Your task to perform on an android device: Open the stopwatch Image 0: 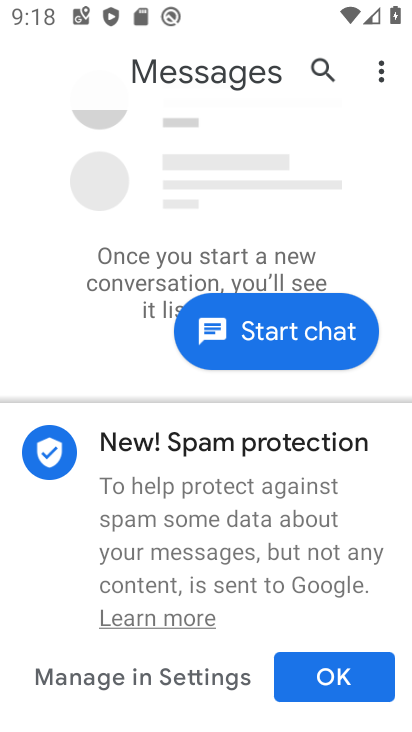
Step 0: press home button
Your task to perform on an android device: Open the stopwatch Image 1: 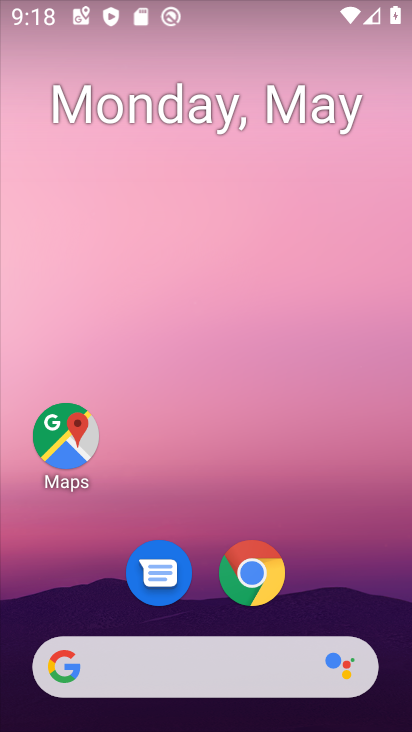
Step 1: drag from (350, 571) to (245, 115)
Your task to perform on an android device: Open the stopwatch Image 2: 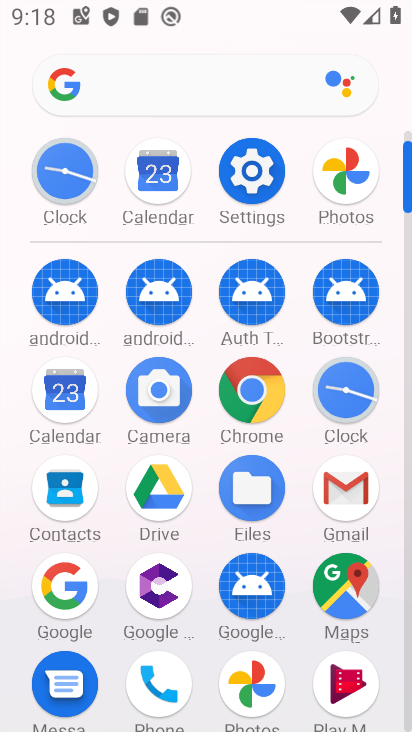
Step 2: click (252, 217)
Your task to perform on an android device: Open the stopwatch Image 3: 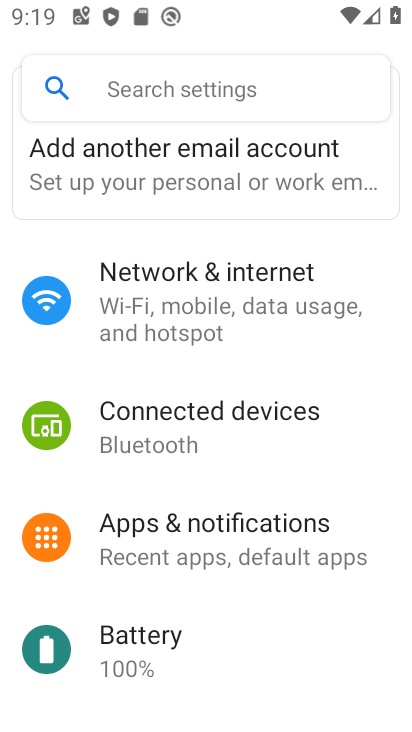
Step 3: drag from (203, 581) to (243, 176)
Your task to perform on an android device: Open the stopwatch Image 4: 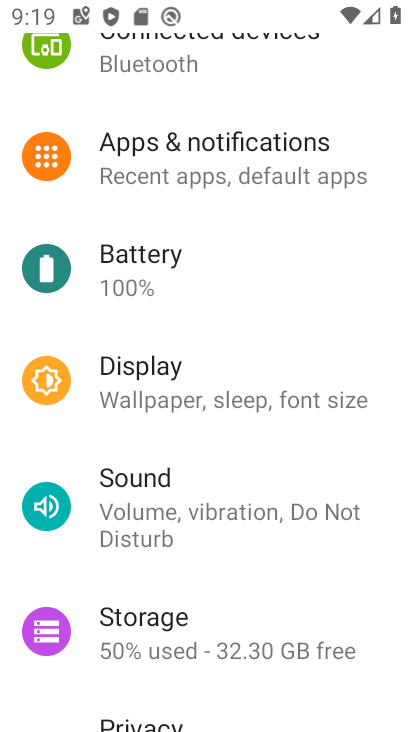
Step 4: drag from (214, 538) to (256, 290)
Your task to perform on an android device: Open the stopwatch Image 5: 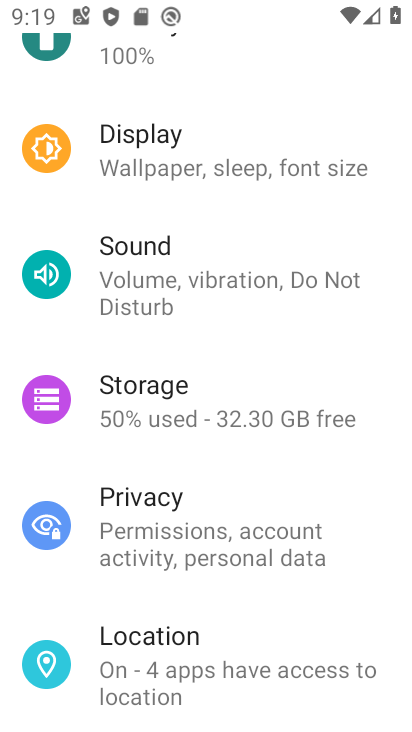
Step 5: drag from (130, 250) to (143, 540)
Your task to perform on an android device: Open the stopwatch Image 6: 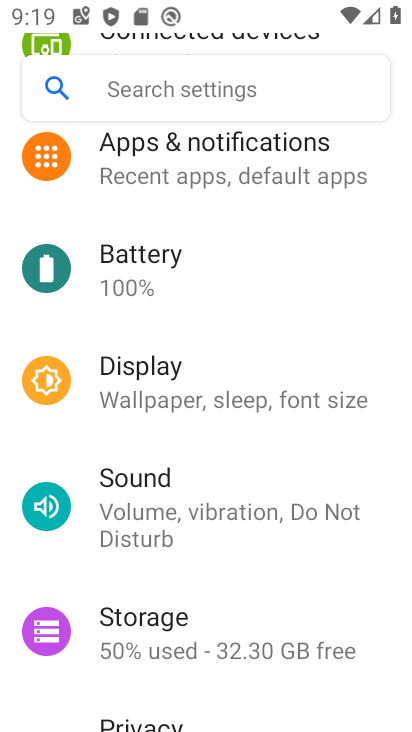
Step 6: press home button
Your task to perform on an android device: Open the stopwatch Image 7: 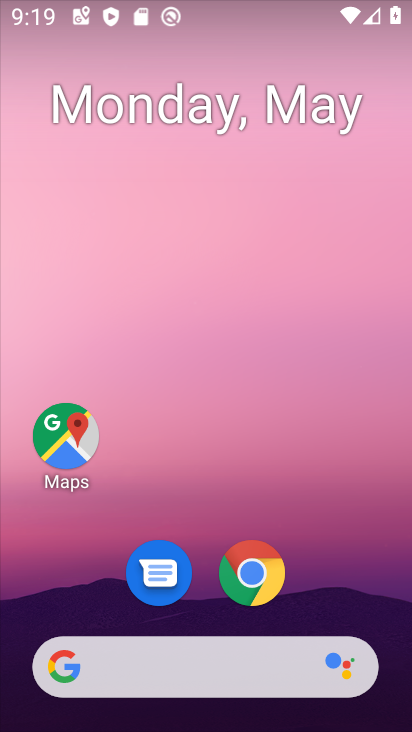
Step 7: drag from (308, 568) to (332, 93)
Your task to perform on an android device: Open the stopwatch Image 8: 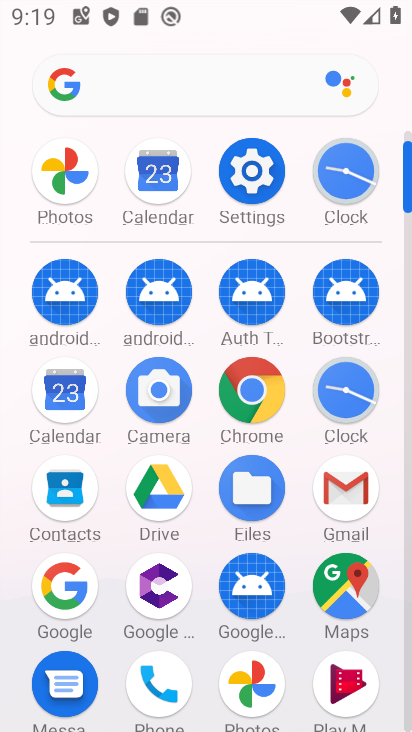
Step 8: click (314, 212)
Your task to perform on an android device: Open the stopwatch Image 9: 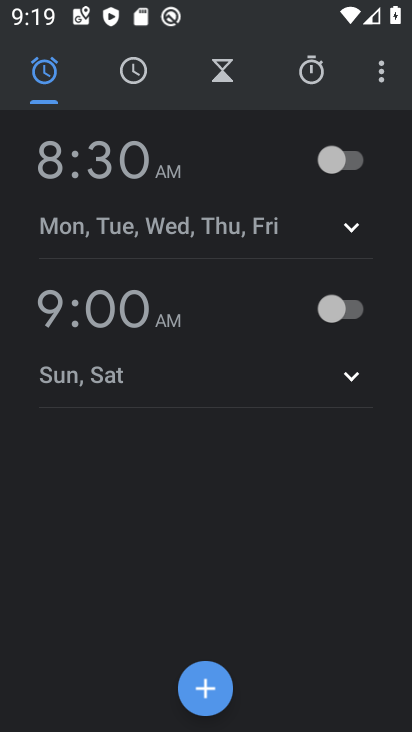
Step 9: click (363, 206)
Your task to perform on an android device: Open the stopwatch Image 10: 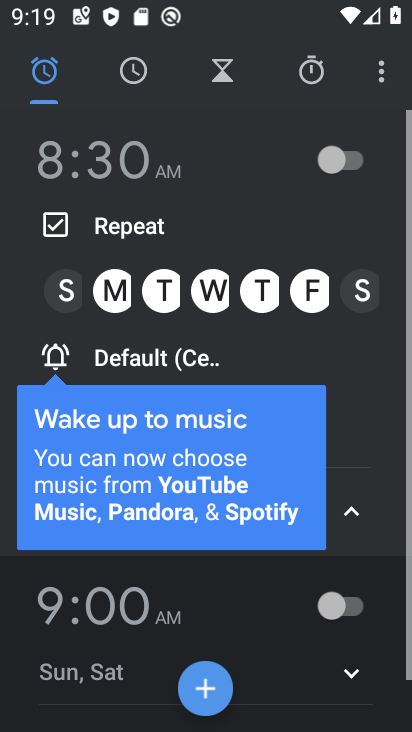
Step 10: task complete